Your task to perform on an android device: Set the phone to "Do not disturb". Image 0: 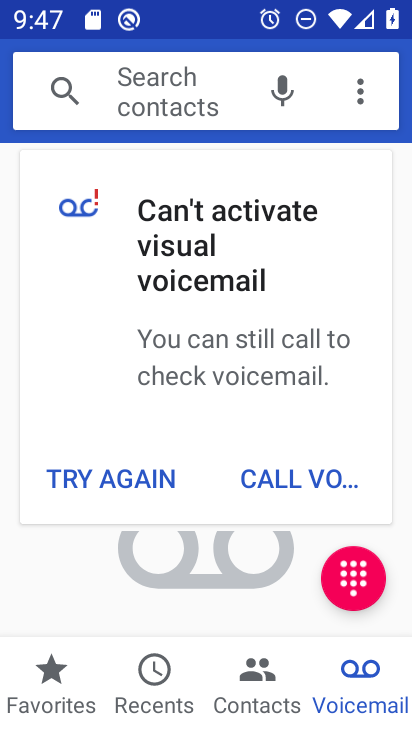
Step 0: press home button
Your task to perform on an android device: Set the phone to "Do not disturb". Image 1: 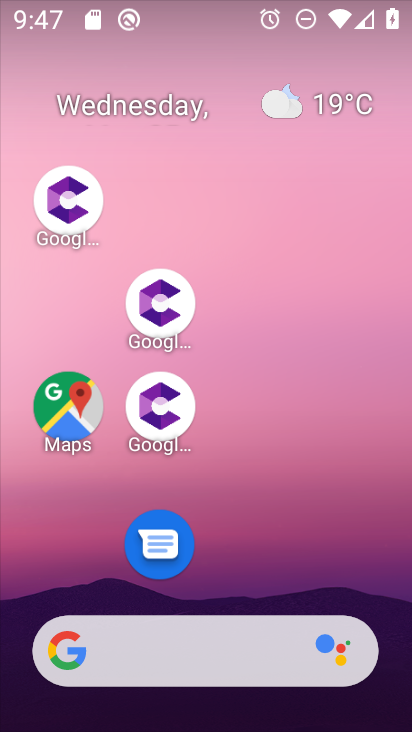
Step 1: drag from (275, 477) to (267, 2)
Your task to perform on an android device: Set the phone to "Do not disturb". Image 2: 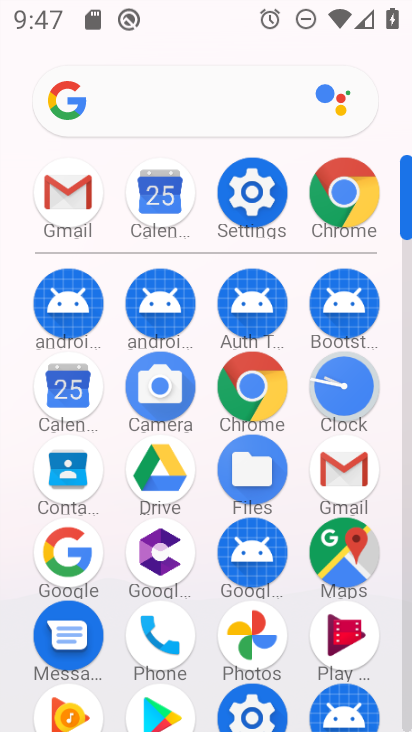
Step 2: click (248, 190)
Your task to perform on an android device: Set the phone to "Do not disturb". Image 3: 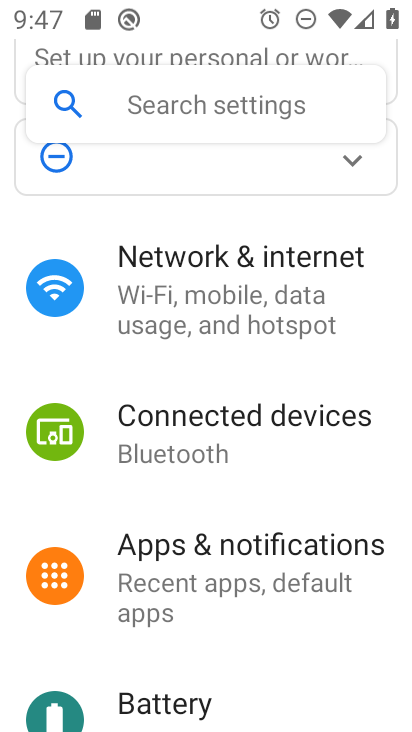
Step 3: drag from (281, 638) to (260, 141)
Your task to perform on an android device: Set the phone to "Do not disturb". Image 4: 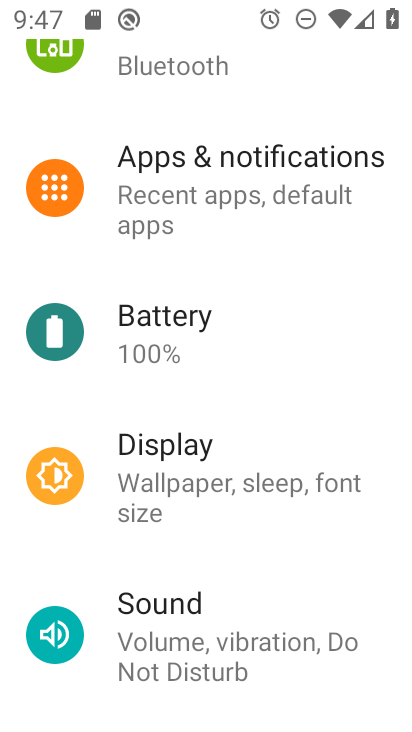
Step 4: click (181, 609)
Your task to perform on an android device: Set the phone to "Do not disturb". Image 5: 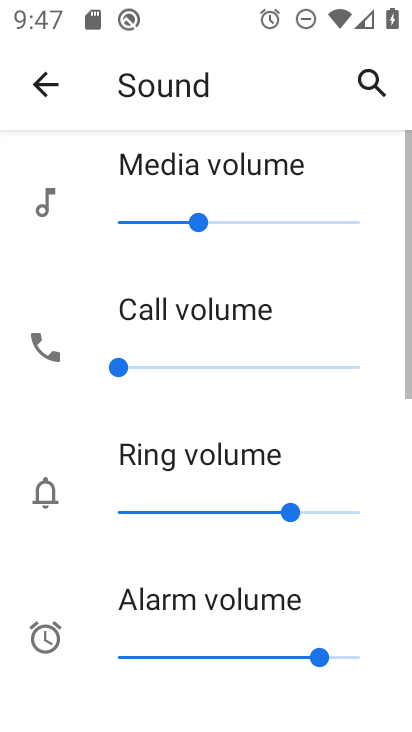
Step 5: drag from (258, 549) to (191, 149)
Your task to perform on an android device: Set the phone to "Do not disturb". Image 6: 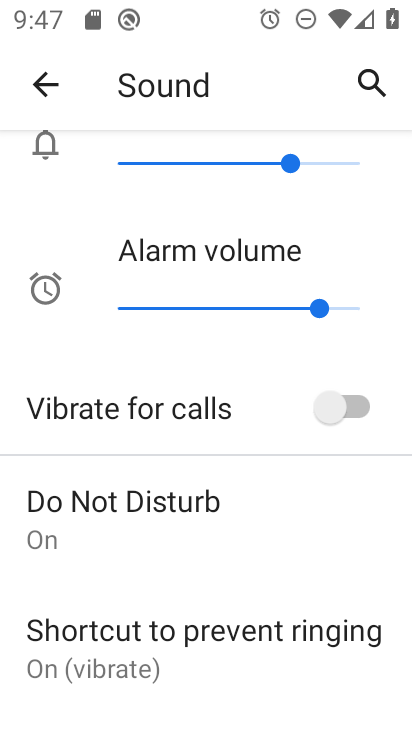
Step 6: click (104, 501)
Your task to perform on an android device: Set the phone to "Do not disturb". Image 7: 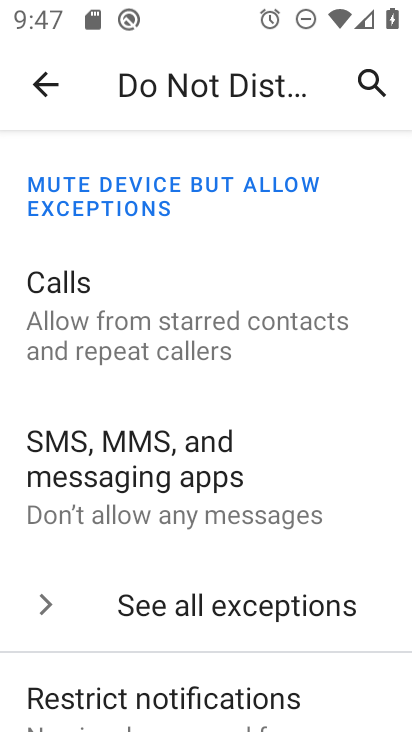
Step 7: drag from (195, 547) to (172, 14)
Your task to perform on an android device: Set the phone to "Do not disturb". Image 8: 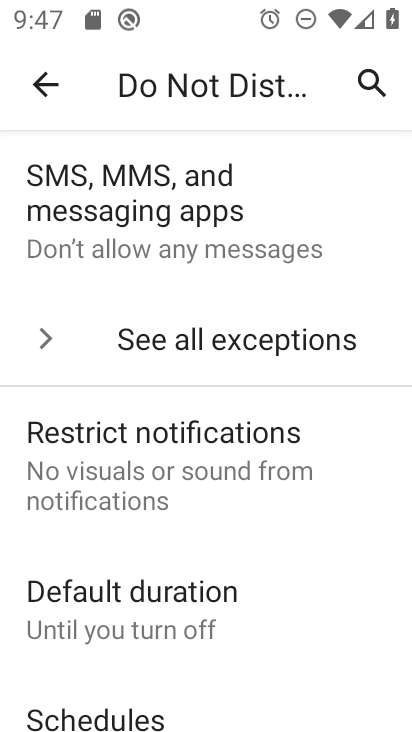
Step 8: drag from (250, 499) to (225, 226)
Your task to perform on an android device: Set the phone to "Do not disturb". Image 9: 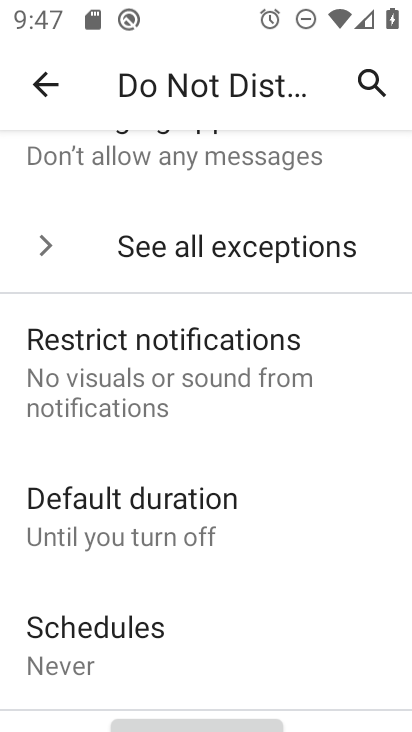
Step 9: drag from (251, 541) to (203, 53)
Your task to perform on an android device: Set the phone to "Do not disturb". Image 10: 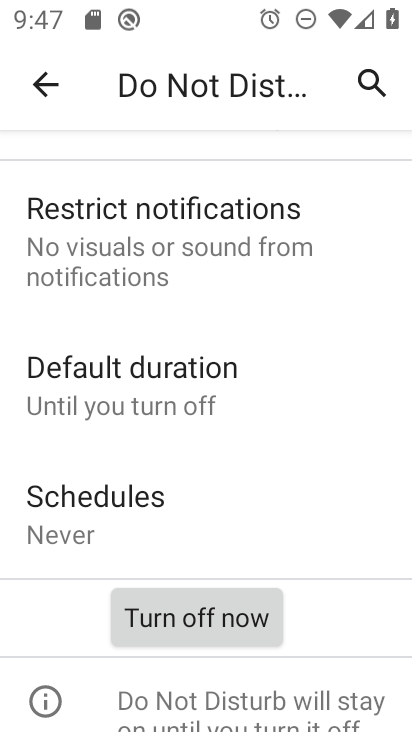
Step 10: click (191, 613)
Your task to perform on an android device: Set the phone to "Do not disturb". Image 11: 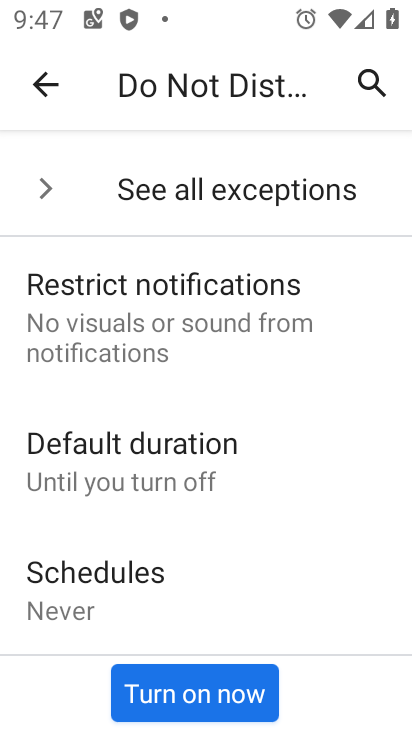
Step 11: click (217, 696)
Your task to perform on an android device: Set the phone to "Do not disturb". Image 12: 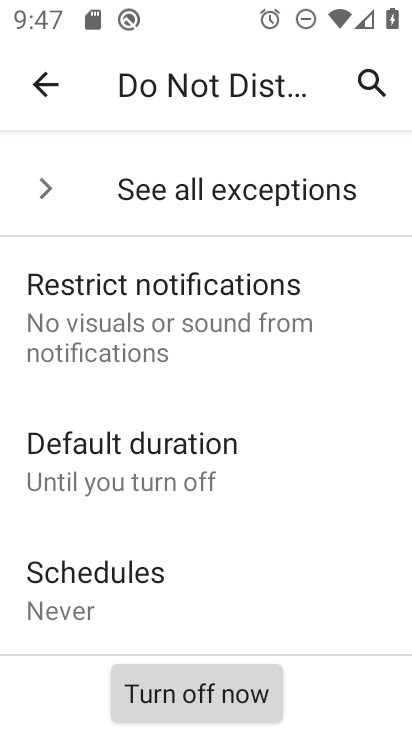
Step 12: task complete